Your task to perform on an android device: choose inbox layout in the gmail app Image 0: 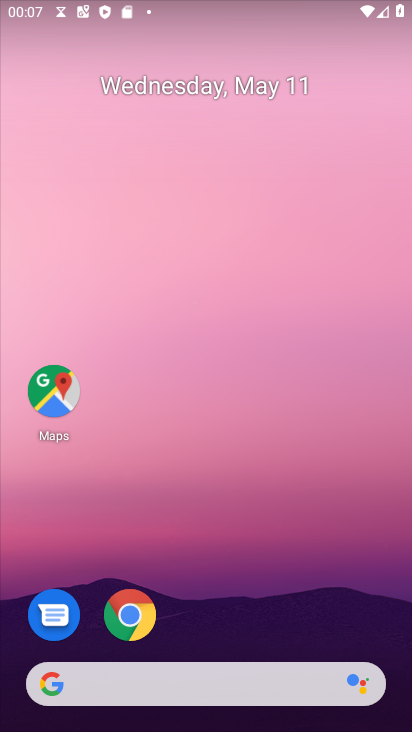
Step 0: drag from (273, 596) to (202, 122)
Your task to perform on an android device: choose inbox layout in the gmail app Image 1: 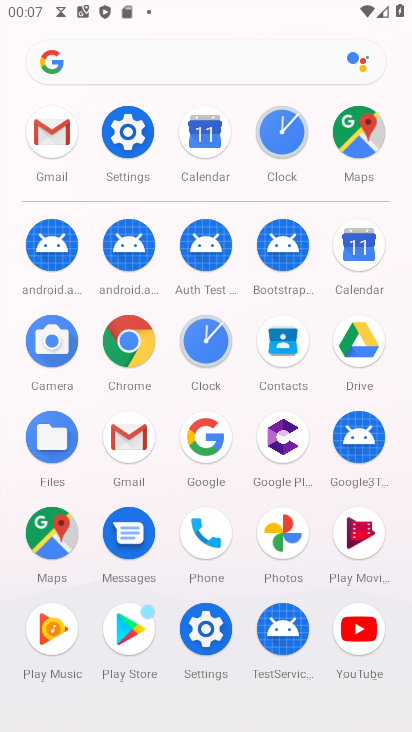
Step 1: click (47, 134)
Your task to perform on an android device: choose inbox layout in the gmail app Image 2: 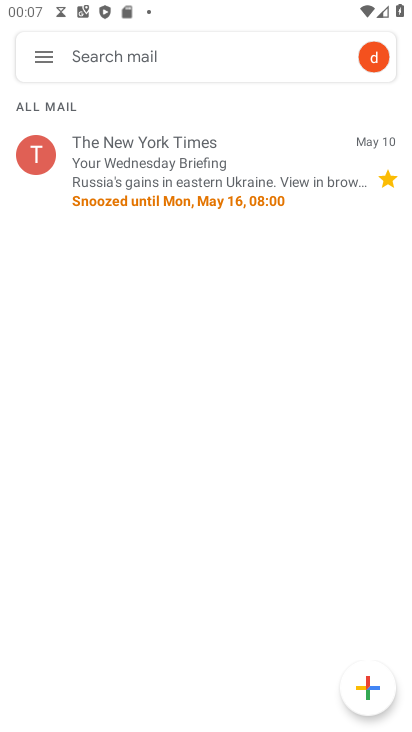
Step 2: click (40, 65)
Your task to perform on an android device: choose inbox layout in the gmail app Image 3: 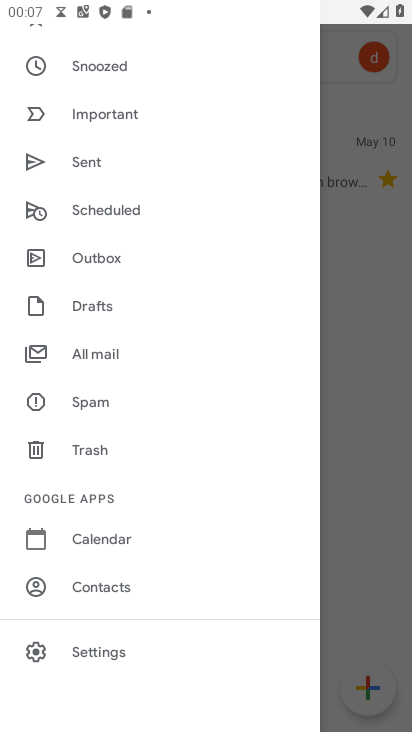
Step 3: click (95, 651)
Your task to perform on an android device: choose inbox layout in the gmail app Image 4: 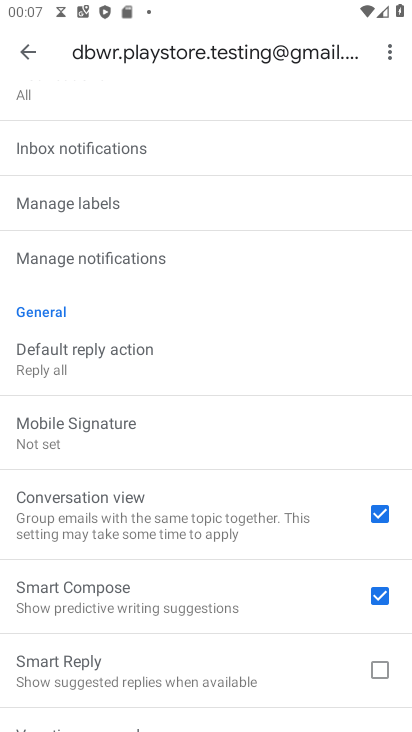
Step 4: drag from (121, 465) to (181, 383)
Your task to perform on an android device: choose inbox layout in the gmail app Image 5: 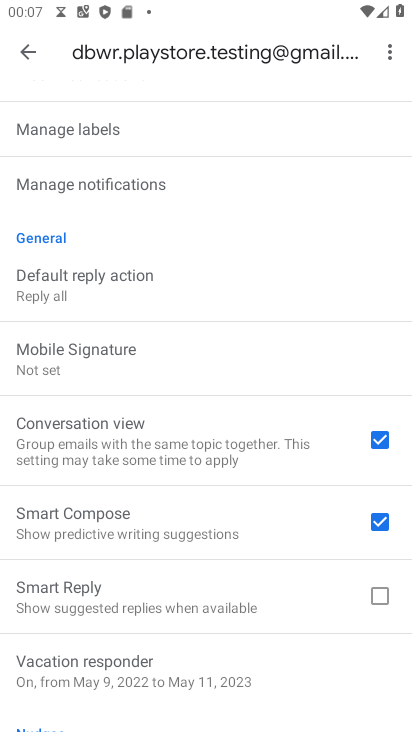
Step 5: drag from (176, 273) to (219, 372)
Your task to perform on an android device: choose inbox layout in the gmail app Image 6: 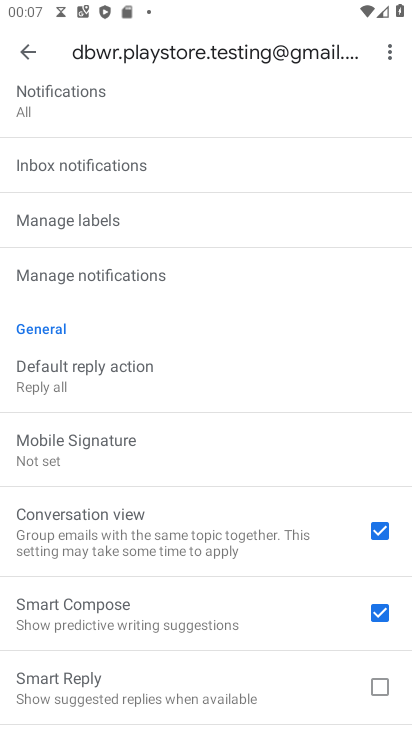
Step 6: drag from (187, 250) to (225, 377)
Your task to perform on an android device: choose inbox layout in the gmail app Image 7: 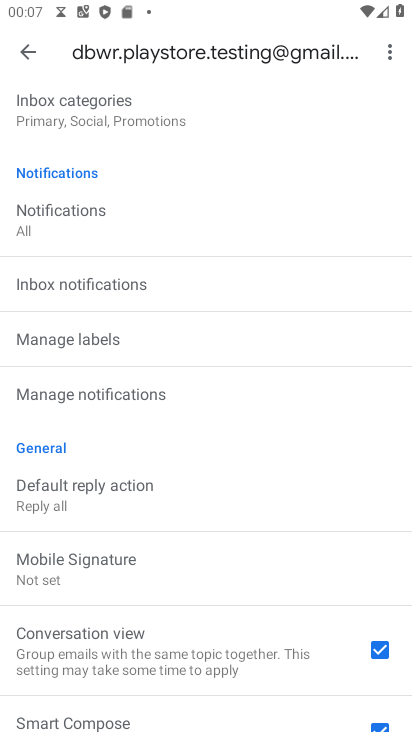
Step 7: drag from (189, 256) to (235, 378)
Your task to perform on an android device: choose inbox layout in the gmail app Image 8: 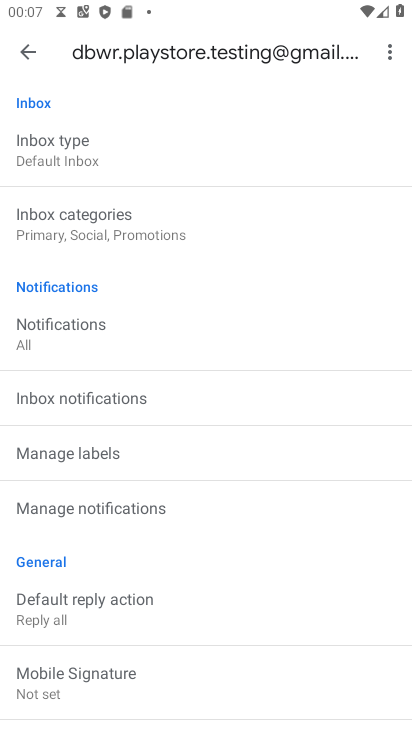
Step 8: drag from (171, 224) to (201, 286)
Your task to perform on an android device: choose inbox layout in the gmail app Image 9: 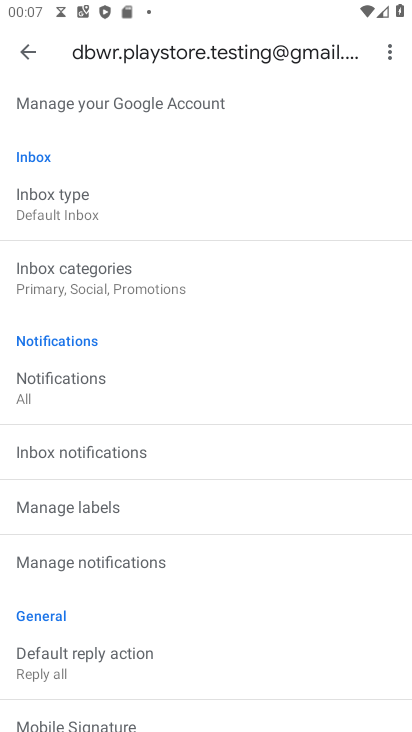
Step 9: click (81, 220)
Your task to perform on an android device: choose inbox layout in the gmail app Image 10: 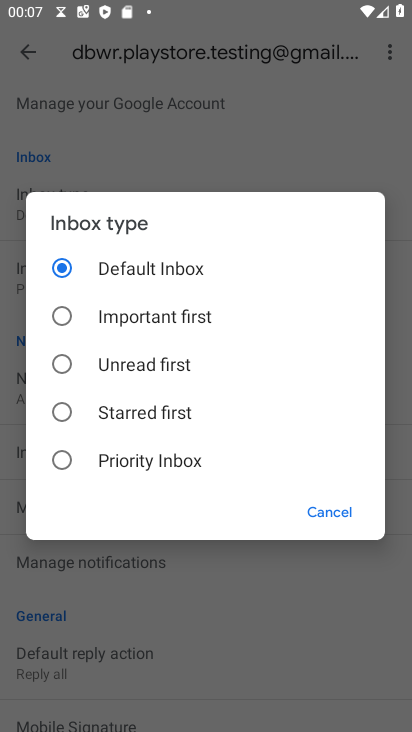
Step 10: click (164, 374)
Your task to perform on an android device: choose inbox layout in the gmail app Image 11: 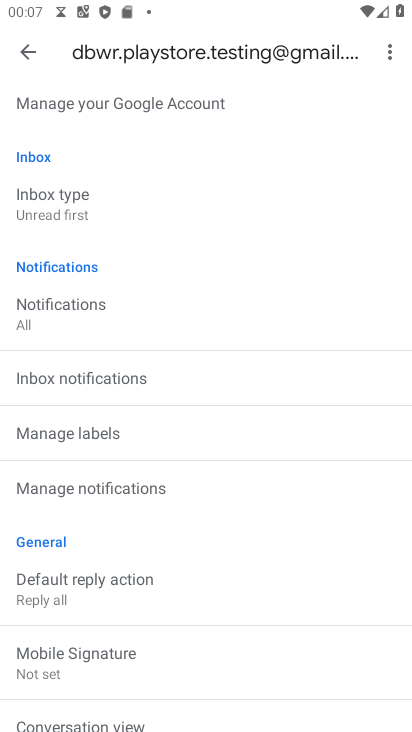
Step 11: task complete